Your task to perform on an android device: toggle priority inbox in the gmail app Image 0: 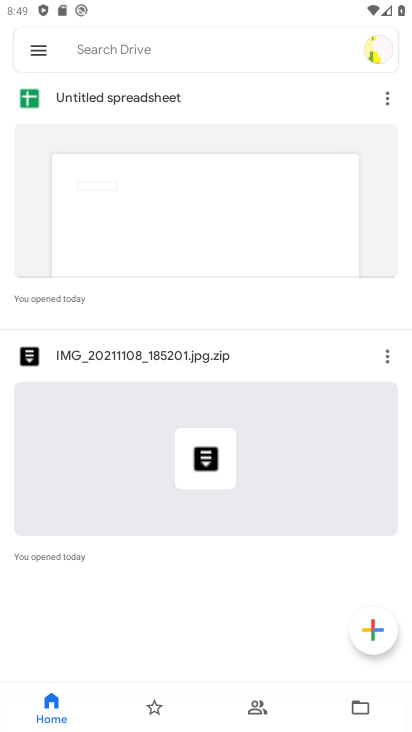
Step 0: press home button
Your task to perform on an android device: toggle priority inbox in the gmail app Image 1: 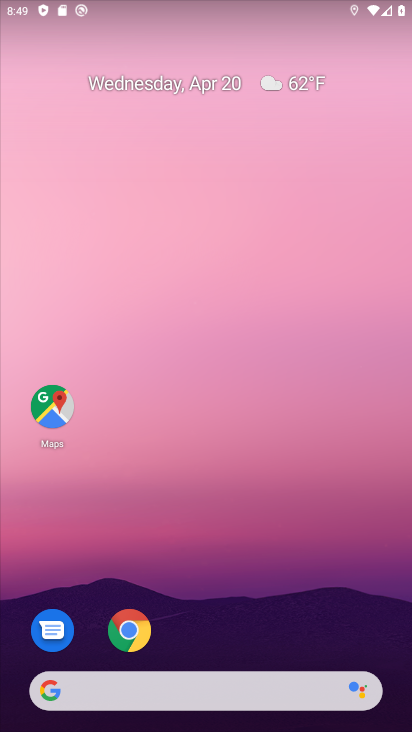
Step 1: drag from (194, 582) to (275, 6)
Your task to perform on an android device: toggle priority inbox in the gmail app Image 2: 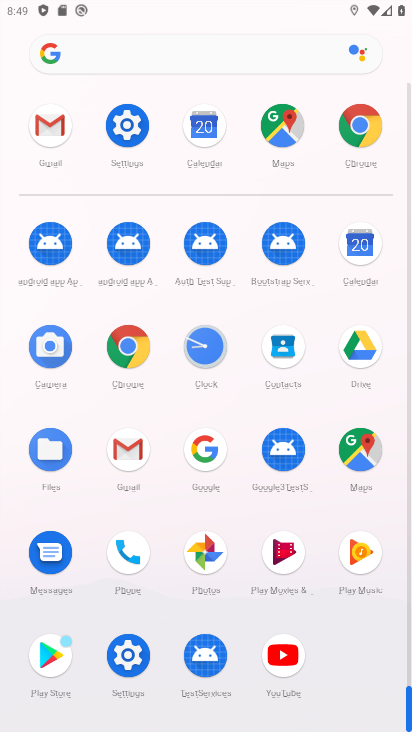
Step 2: click (135, 451)
Your task to perform on an android device: toggle priority inbox in the gmail app Image 3: 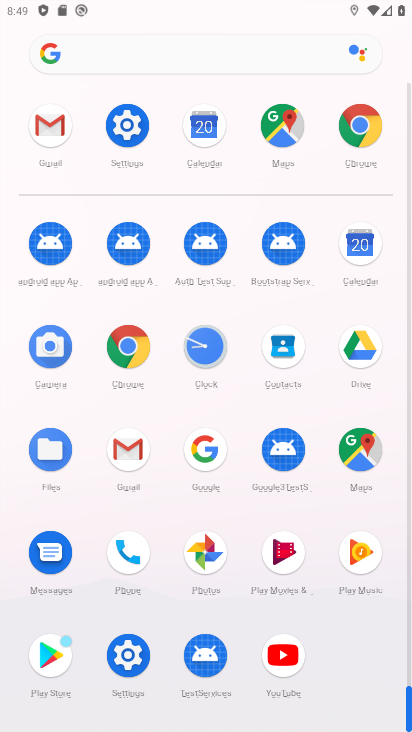
Step 3: click (135, 452)
Your task to perform on an android device: toggle priority inbox in the gmail app Image 4: 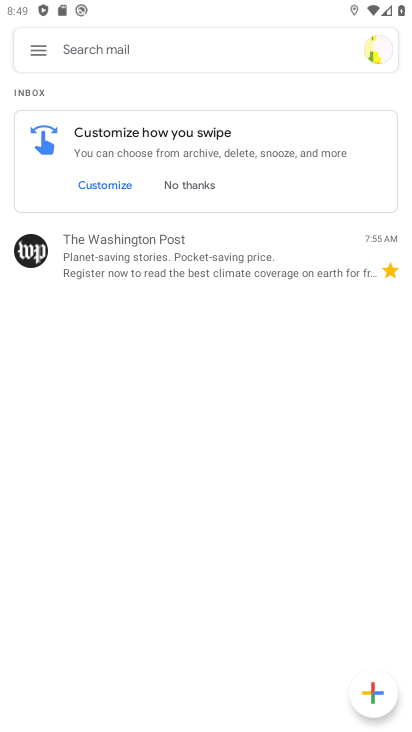
Step 4: click (34, 47)
Your task to perform on an android device: toggle priority inbox in the gmail app Image 5: 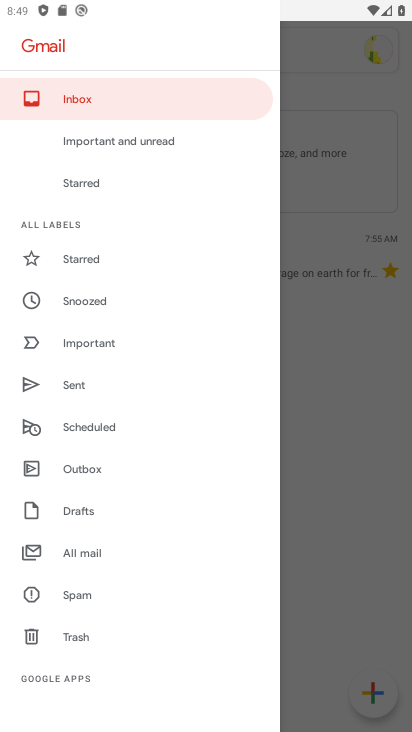
Step 5: drag from (93, 589) to (141, 222)
Your task to perform on an android device: toggle priority inbox in the gmail app Image 6: 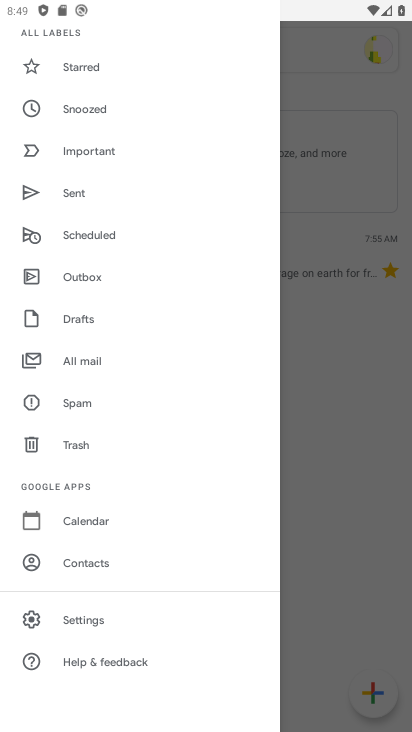
Step 6: click (89, 622)
Your task to perform on an android device: toggle priority inbox in the gmail app Image 7: 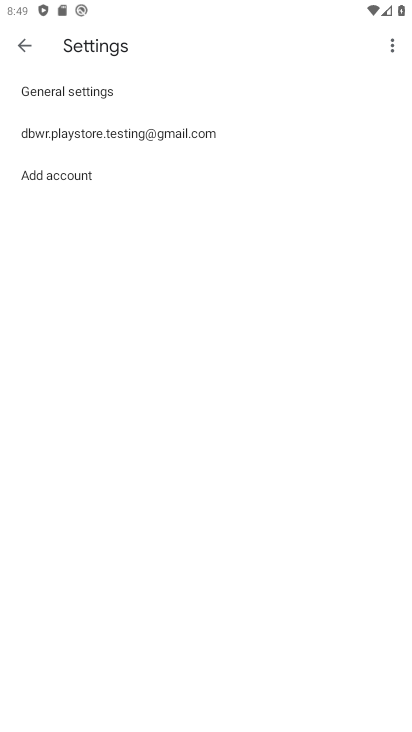
Step 7: click (79, 129)
Your task to perform on an android device: toggle priority inbox in the gmail app Image 8: 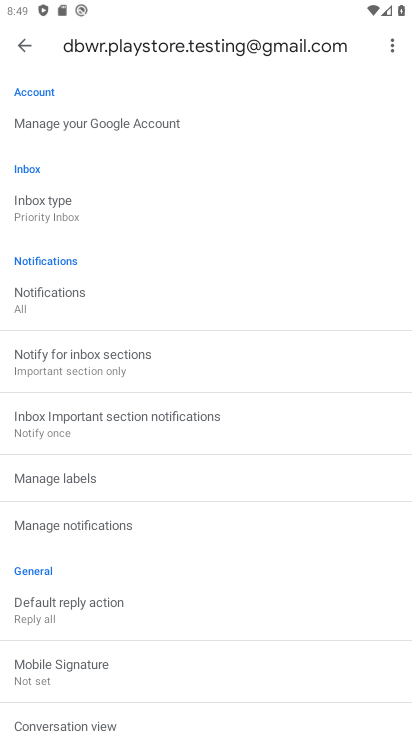
Step 8: click (56, 209)
Your task to perform on an android device: toggle priority inbox in the gmail app Image 9: 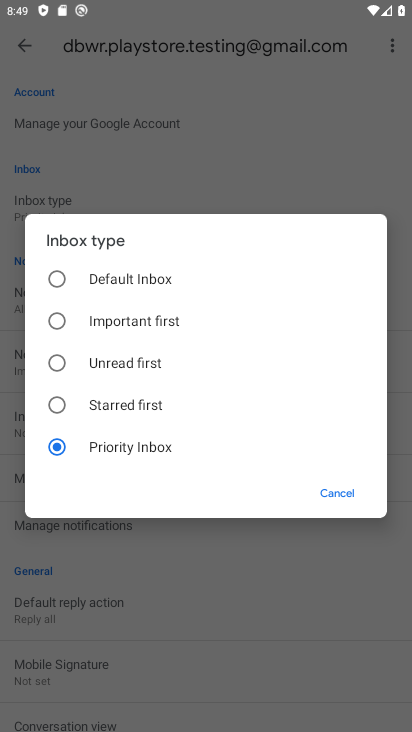
Step 9: click (62, 280)
Your task to perform on an android device: toggle priority inbox in the gmail app Image 10: 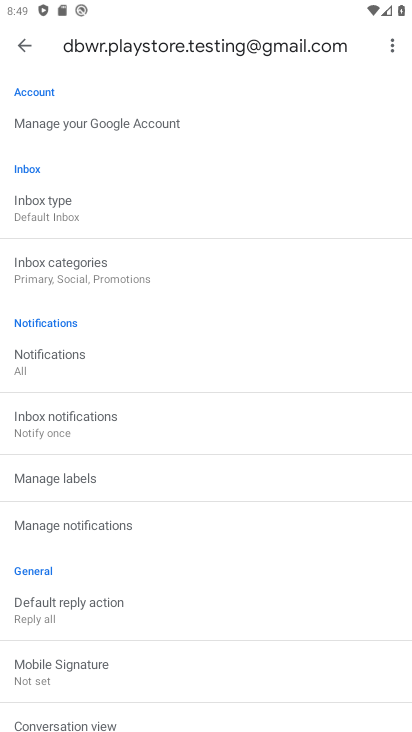
Step 10: task complete